Your task to perform on an android device: delete the emails in spam in the gmail app Image 0: 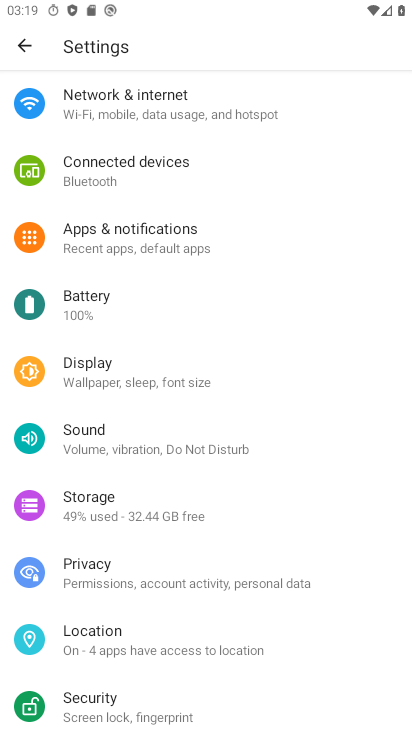
Step 0: press home button
Your task to perform on an android device: delete the emails in spam in the gmail app Image 1: 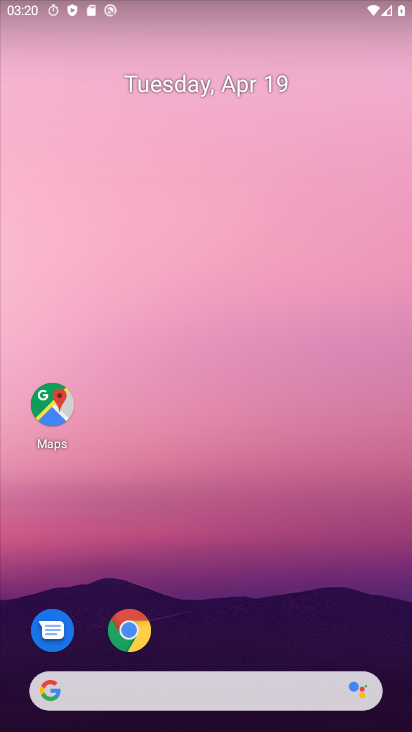
Step 1: drag from (273, 546) to (246, 90)
Your task to perform on an android device: delete the emails in spam in the gmail app Image 2: 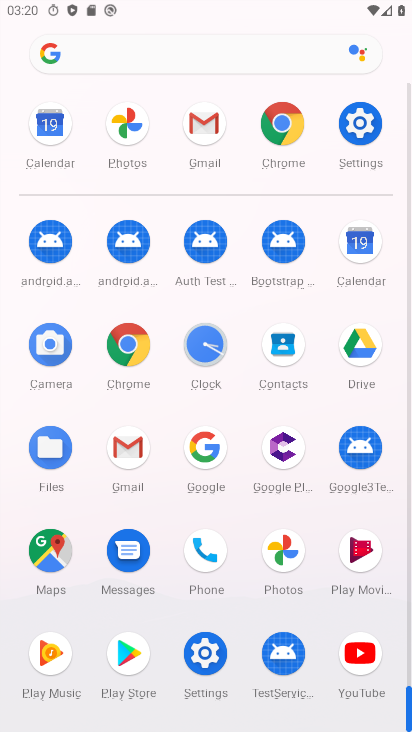
Step 2: click (206, 122)
Your task to perform on an android device: delete the emails in spam in the gmail app Image 3: 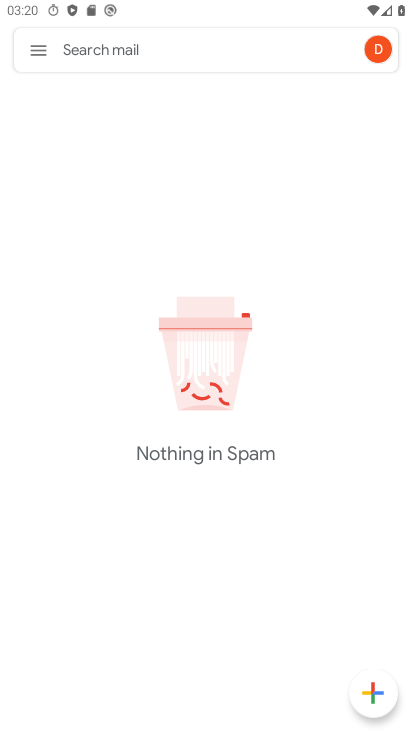
Step 3: task complete